Your task to perform on an android device: change alarm snooze length Image 0: 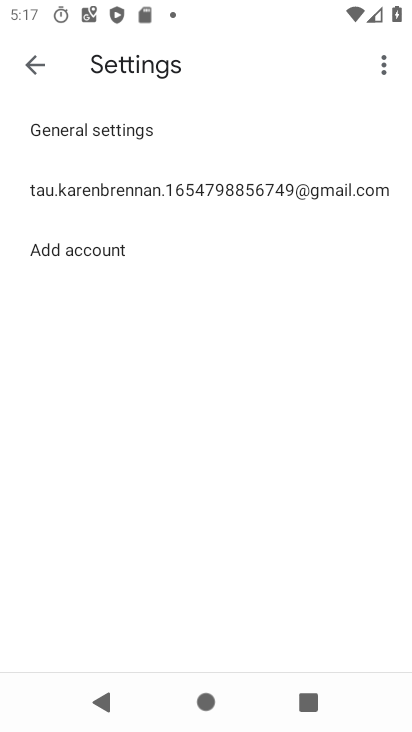
Step 0: press home button
Your task to perform on an android device: change alarm snooze length Image 1: 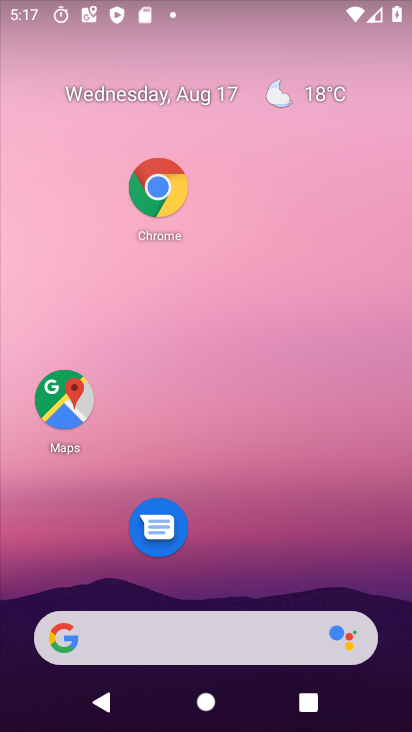
Step 1: drag from (252, 523) to (322, 100)
Your task to perform on an android device: change alarm snooze length Image 2: 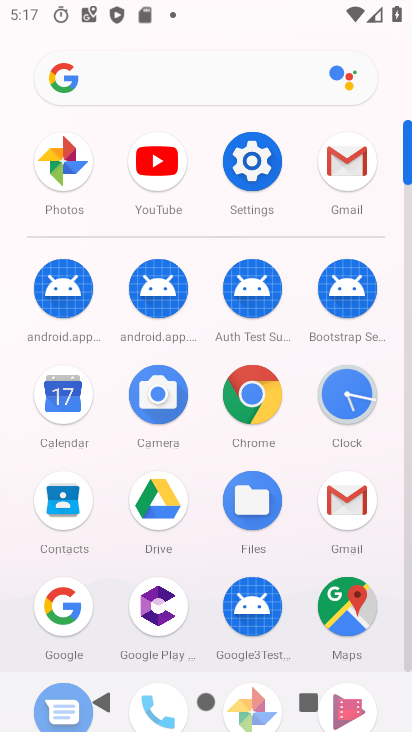
Step 2: click (353, 412)
Your task to perform on an android device: change alarm snooze length Image 3: 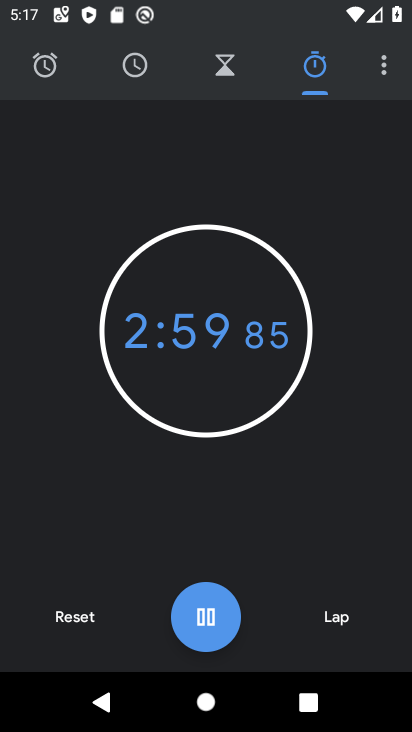
Step 3: click (392, 58)
Your task to perform on an android device: change alarm snooze length Image 4: 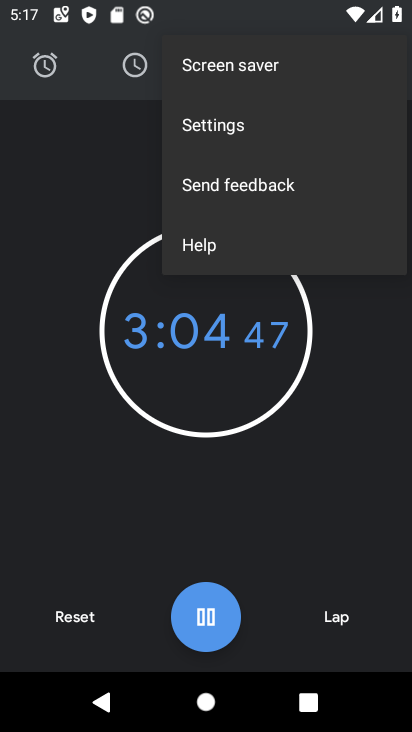
Step 4: click (270, 121)
Your task to perform on an android device: change alarm snooze length Image 5: 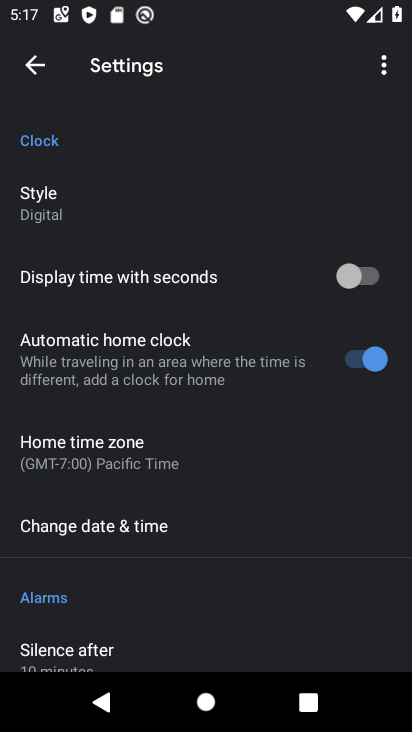
Step 5: drag from (154, 620) to (318, 97)
Your task to perform on an android device: change alarm snooze length Image 6: 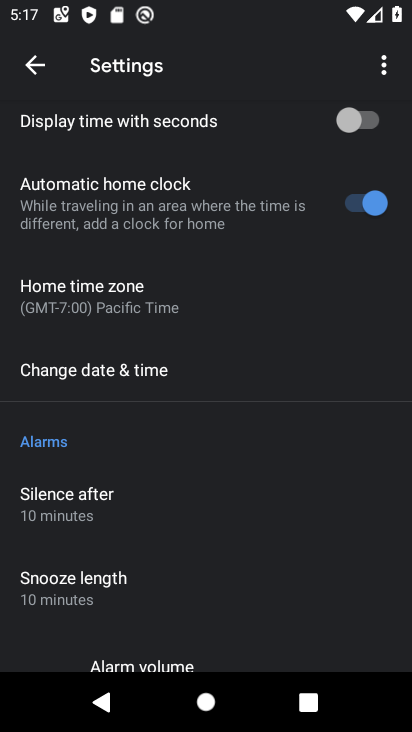
Step 6: click (127, 589)
Your task to perform on an android device: change alarm snooze length Image 7: 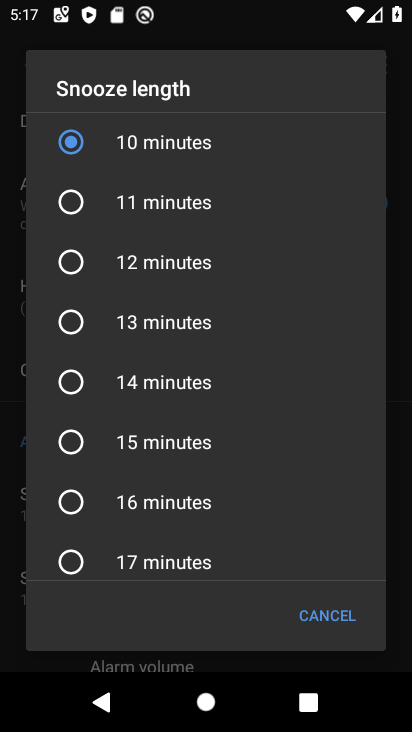
Step 7: click (158, 558)
Your task to perform on an android device: change alarm snooze length Image 8: 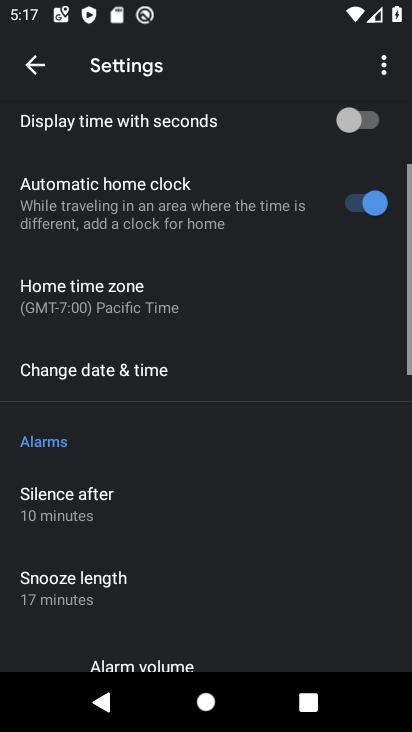
Step 8: task complete